Your task to perform on an android device: remove spam from my inbox in the gmail app Image 0: 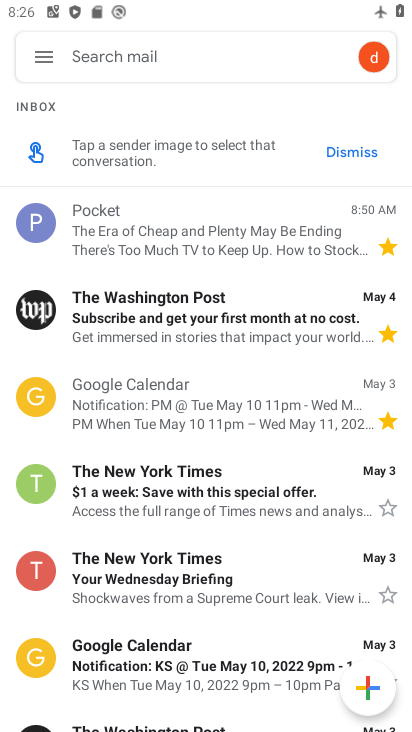
Step 0: click (40, 49)
Your task to perform on an android device: remove spam from my inbox in the gmail app Image 1: 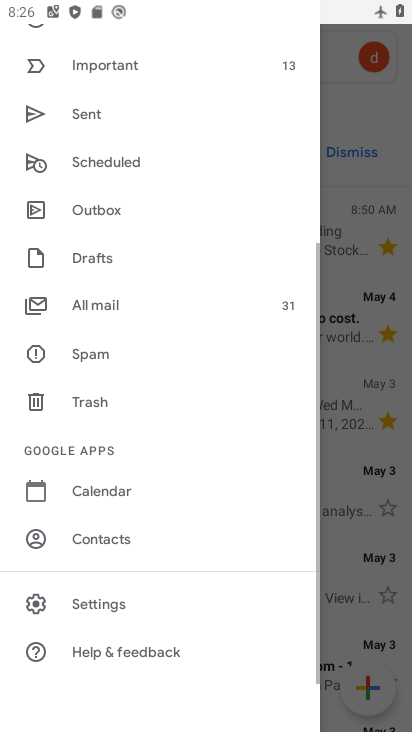
Step 1: click (78, 358)
Your task to perform on an android device: remove spam from my inbox in the gmail app Image 2: 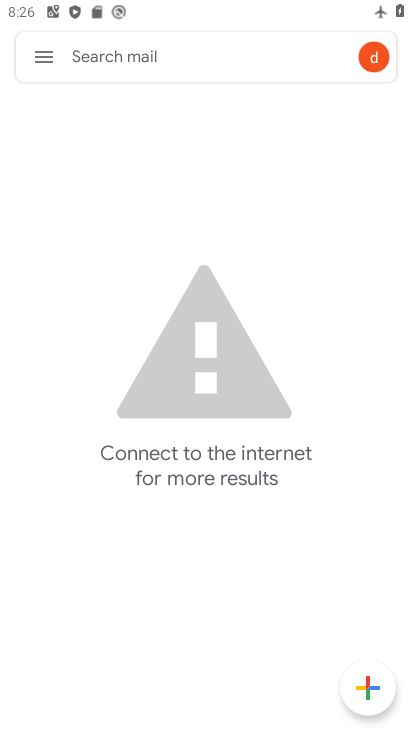
Step 2: task complete